Your task to perform on an android device: snooze an email in the gmail app Image 0: 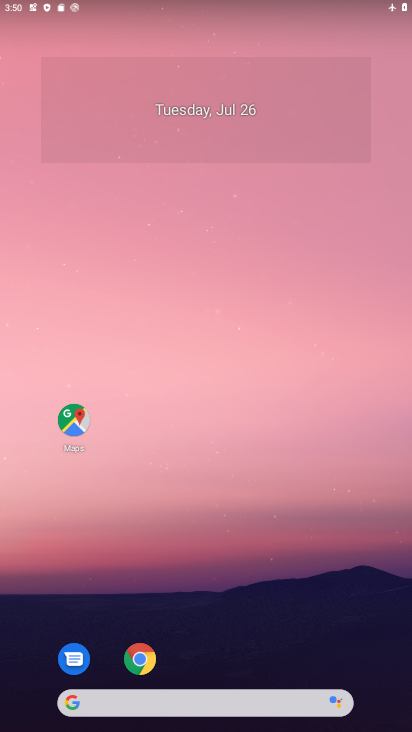
Step 0: drag from (180, 661) to (145, 10)
Your task to perform on an android device: snooze an email in the gmail app Image 1: 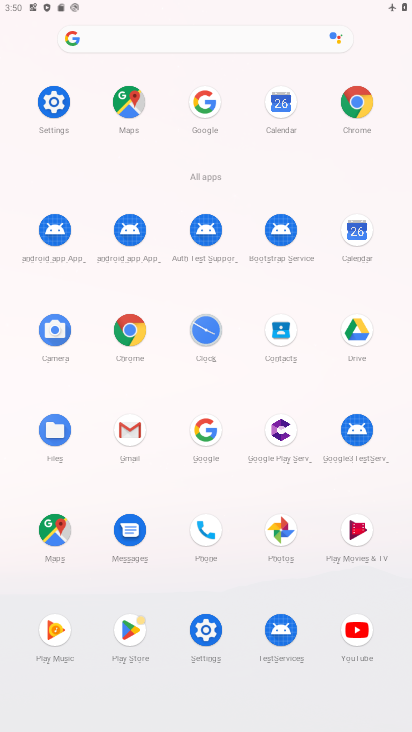
Step 1: click (132, 427)
Your task to perform on an android device: snooze an email in the gmail app Image 2: 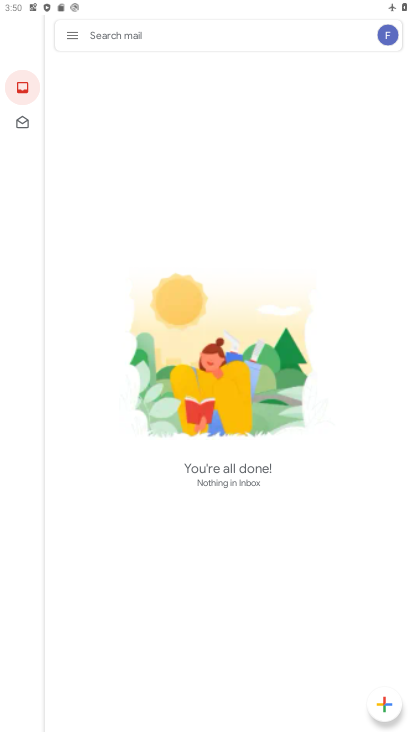
Step 2: click (82, 29)
Your task to perform on an android device: snooze an email in the gmail app Image 3: 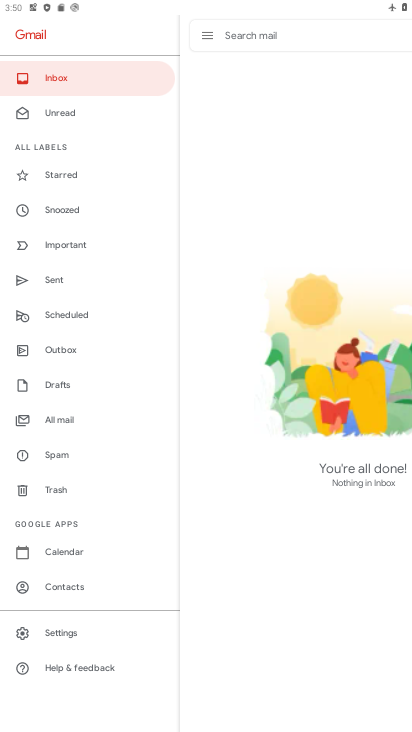
Step 3: click (62, 207)
Your task to perform on an android device: snooze an email in the gmail app Image 4: 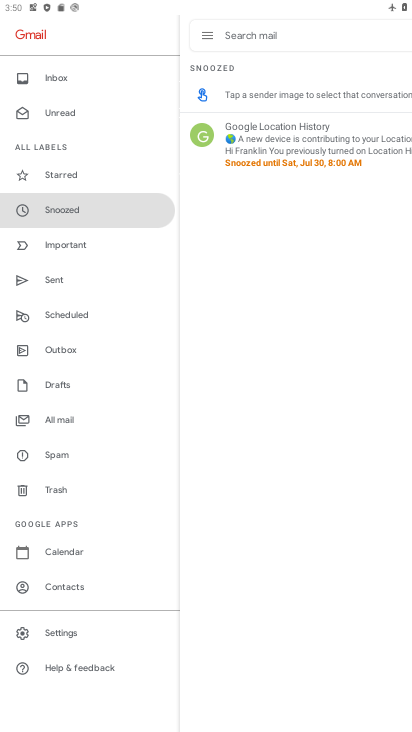
Step 4: task complete